Your task to perform on an android device: Go to sound settings Image 0: 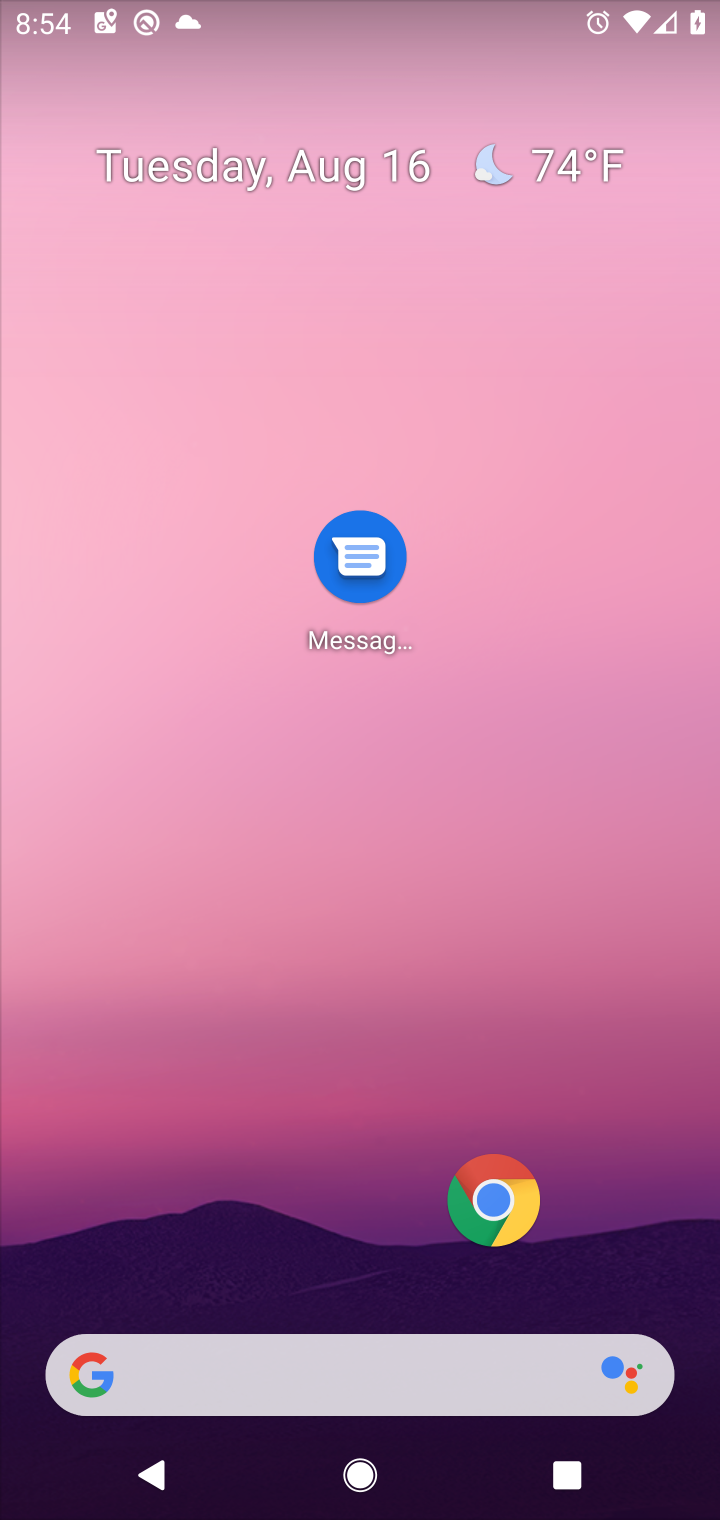
Step 0: drag from (102, 1238) to (277, 714)
Your task to perform on an android device: Go to sound settings Image 1: 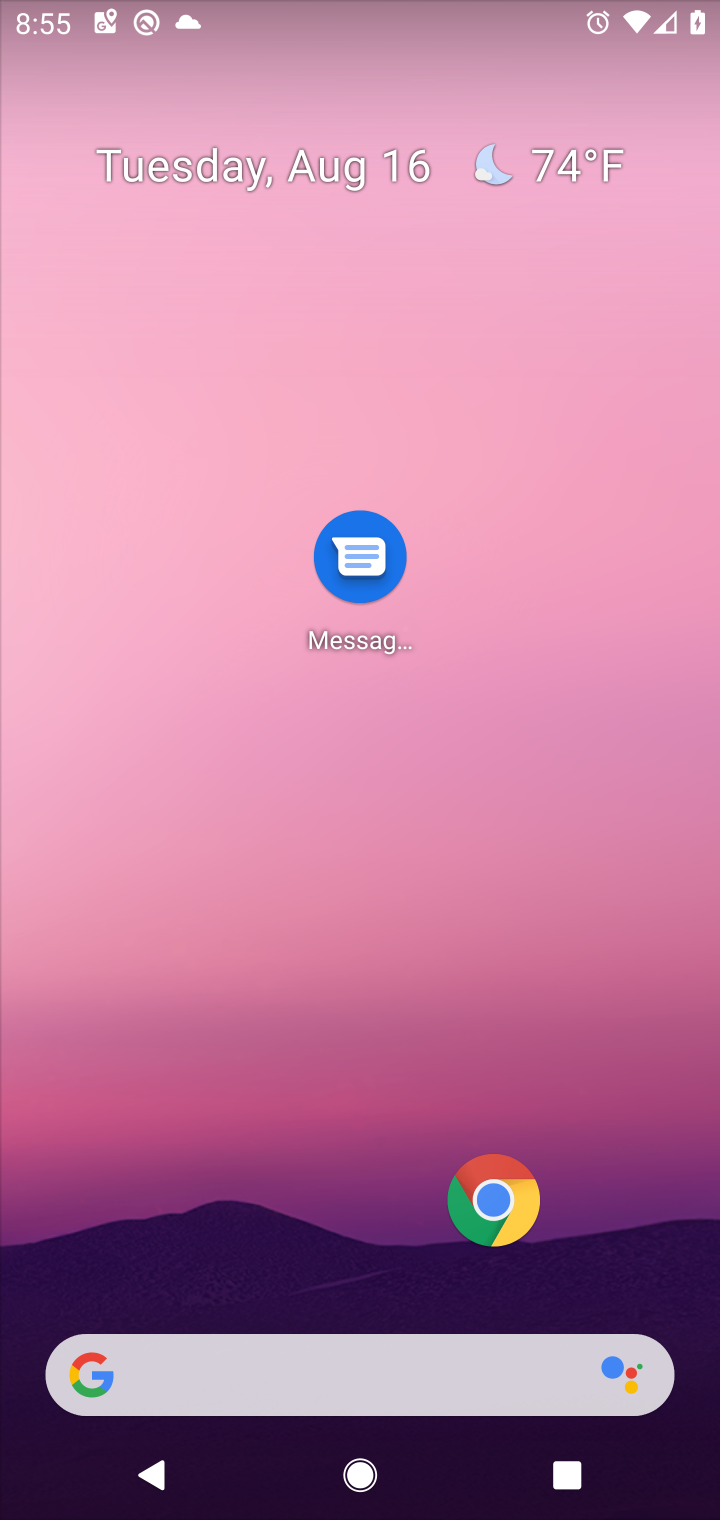
Step 1: task complete